Your task to perform on an android device: Search for seafood restaurants on Google Maps Image 0: 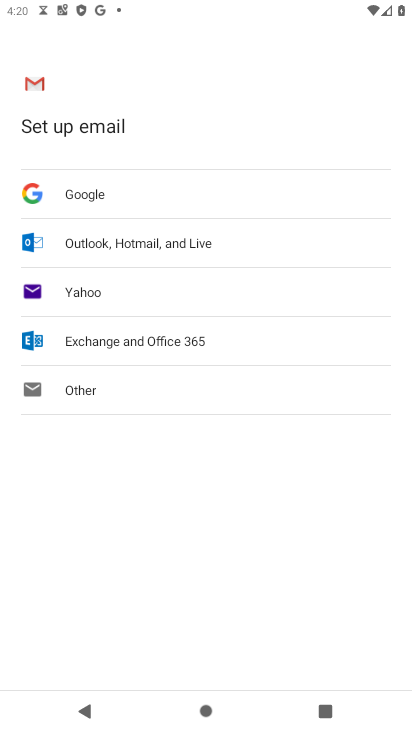
Step 0: press home button
Your task to perform on an android device: Search for seafood restaurants on Google Maps Image 1: 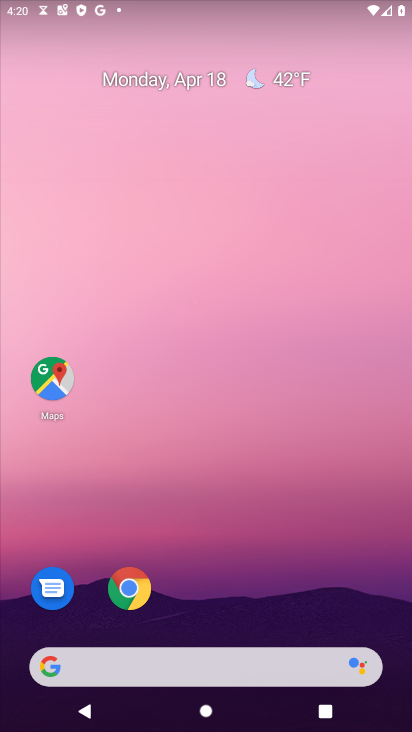
Step 1: click (57, 400)
Your task to perform on an android device: Search for seafood restaurants on Google Maps Image 2: 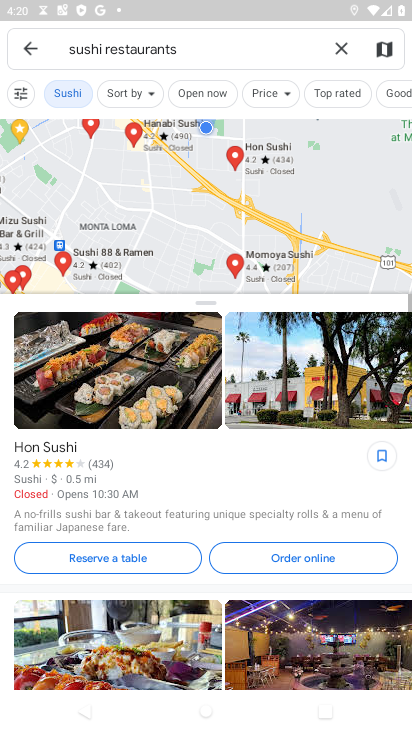
Step 2: click (192, 55)
Your task to perform on an android device: Search for seafood restaurants on Google Maps Image 3: 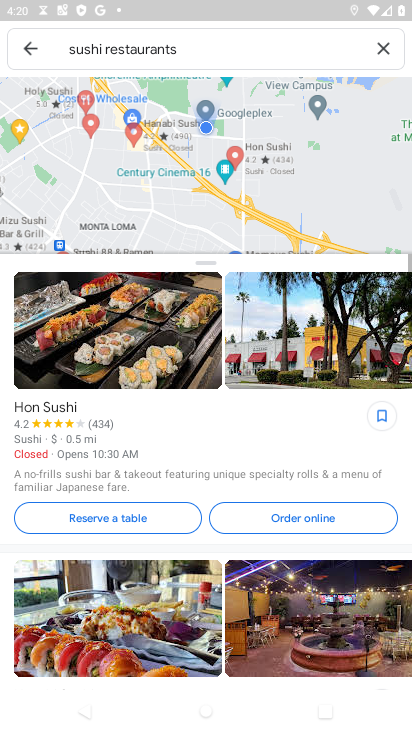
Step 3: click (340, 55)
Your task to perform on an android device: Search for seafood restaurants on Google Maps Image 4: 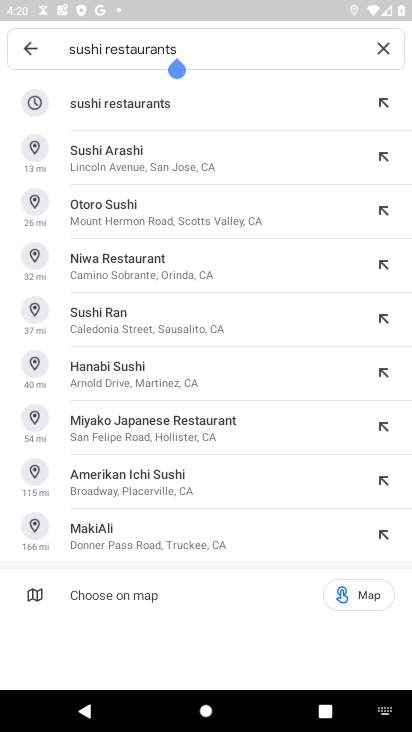
Step 4: click (387, 50)
Your task to perform on an android device: Search for seafood restaurants on Google Maps Image 5: 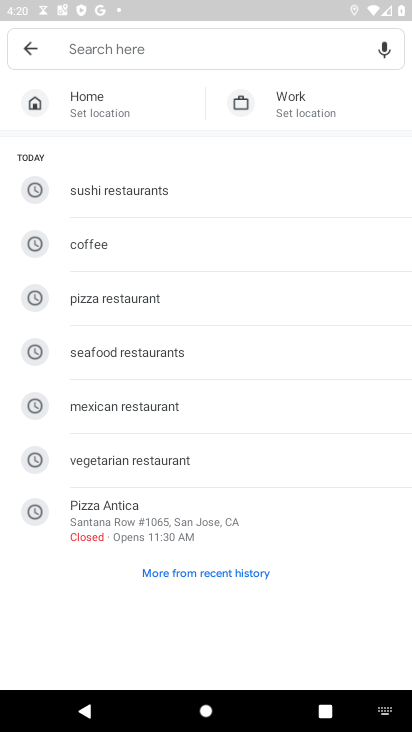
Step 5: click (241, 42)
Your task to perform on an android device: Search for seafood restaurants on Google Maps Image 6: 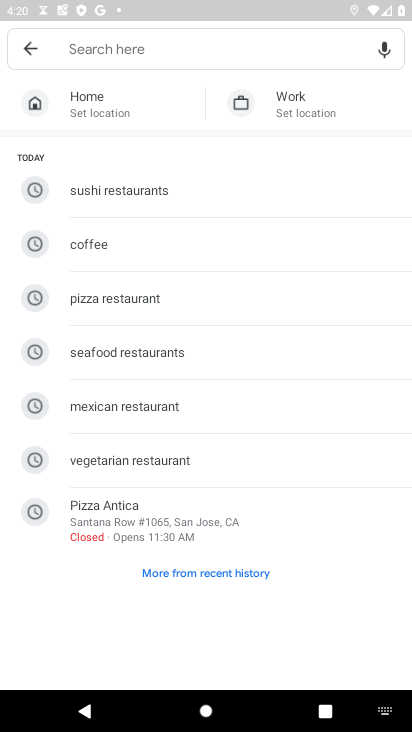
Step 6: click (173, 350)
Your task to perform on an android device: Search for seafood restaurants on Google Maps Image 7: 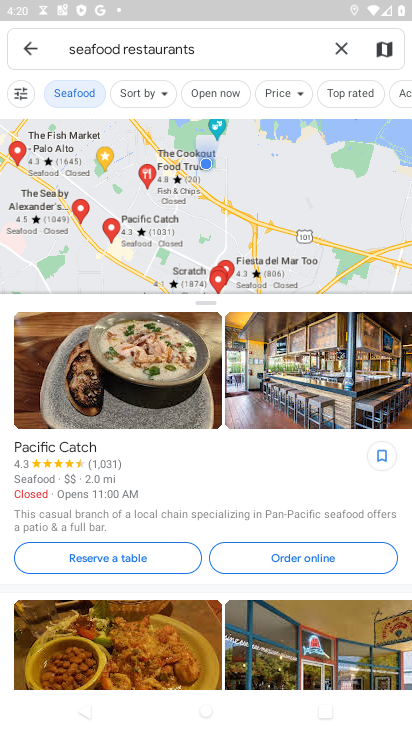
Step 7: task complete